Your task to perform on an android device: Go to CNN.com Image 0: 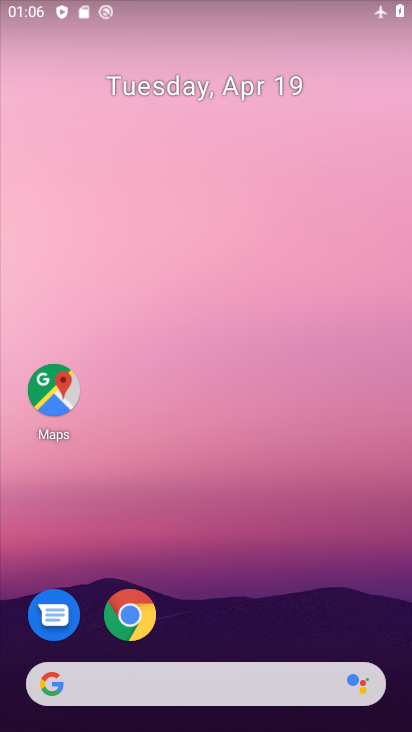
Step 0: click (146, 622)
Your task to perform on an android device: Go to CNN.com Image 1: 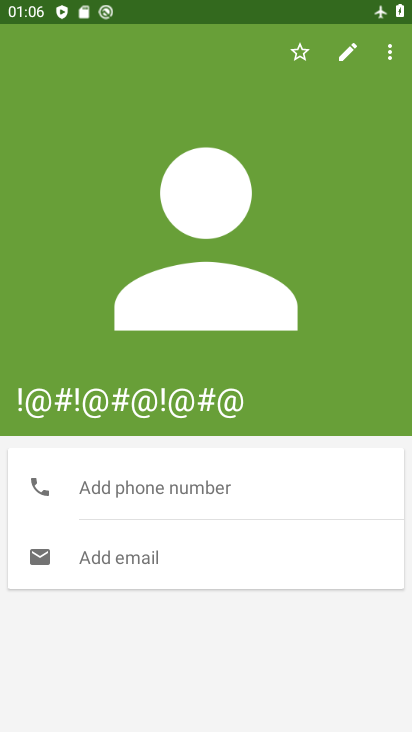
Step 1: press home button
Your task to perform on an android device: Go to CNN.com Image 2: 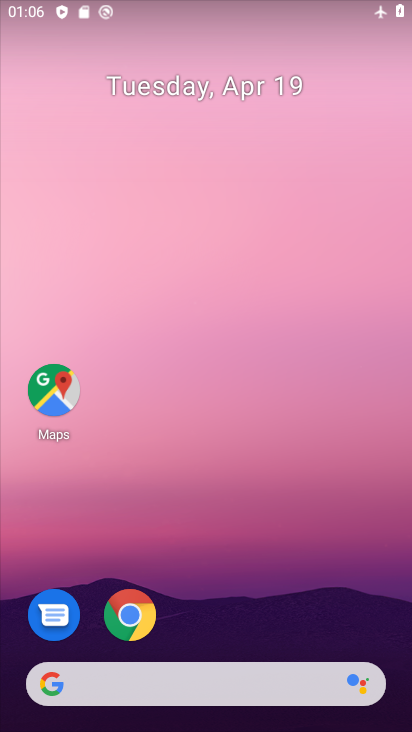
Step 2: drag from (228, 608) to (219, 189)
Your task to perform on an android device: Go to CNN.com Image 3: 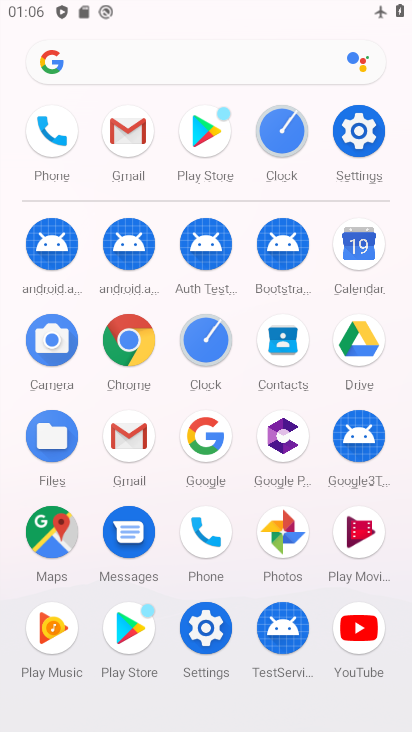
Step 3: click (131, 365)
Your task to perform on an android device: Go to CNN.com Image 4: 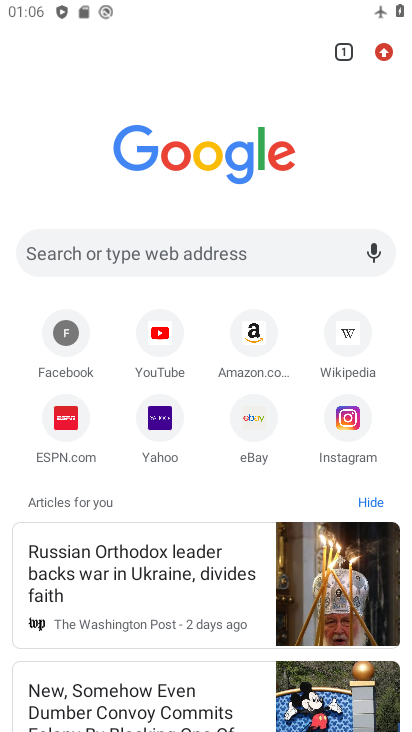
Step 4: click (159, 261)
Your task to perform on an android device: Go to CNN.com Image 5: 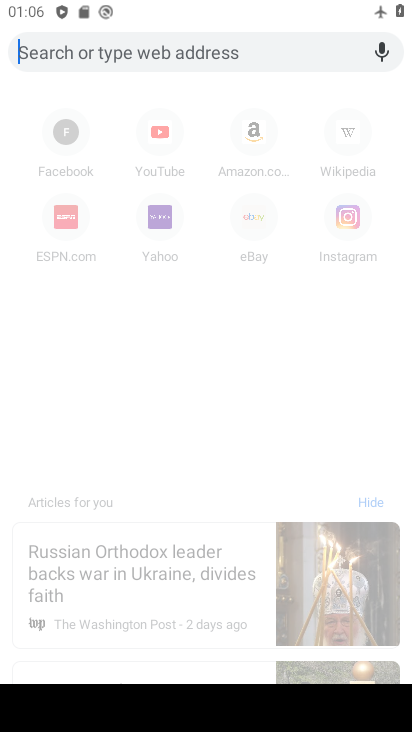
Step 5: type "CNN.com"
Your task to perform on an android device: Go to CNN.com Image 6: 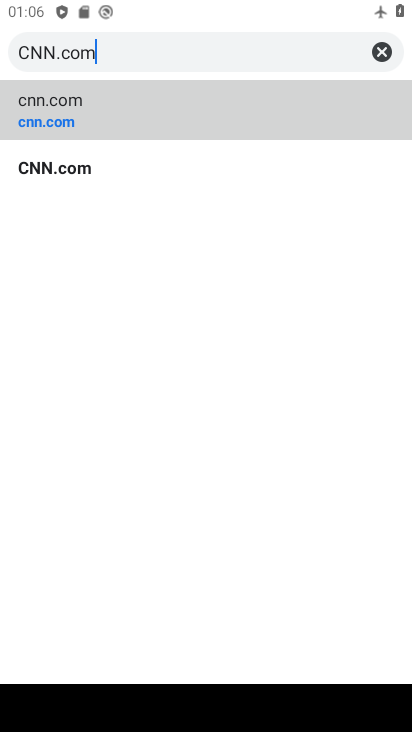
Step 6: click (45, 159)
Your task to perform on an android device: Go to CNN.com Image 7: 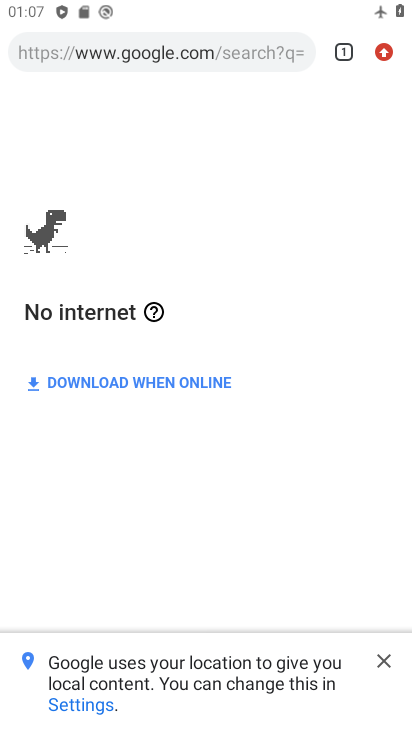
Step 7: task complete